Your task to perform on an android device: toggle improve location accuracy Image 0: 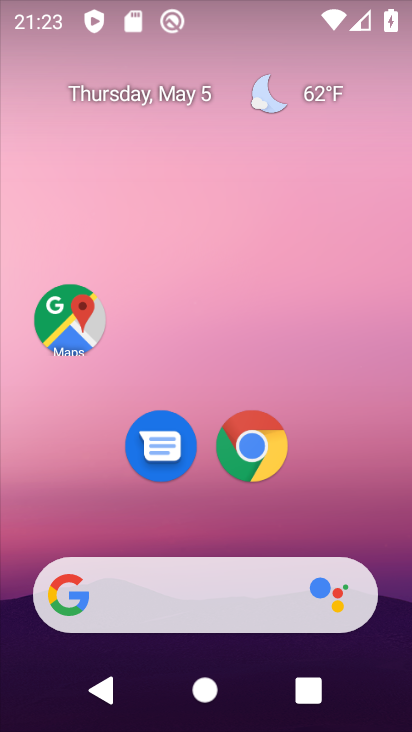
Step 0: drag from (223, 645) to (185, 399)
Your task to perform on an android device: toggle improve location accuracy Image 1: 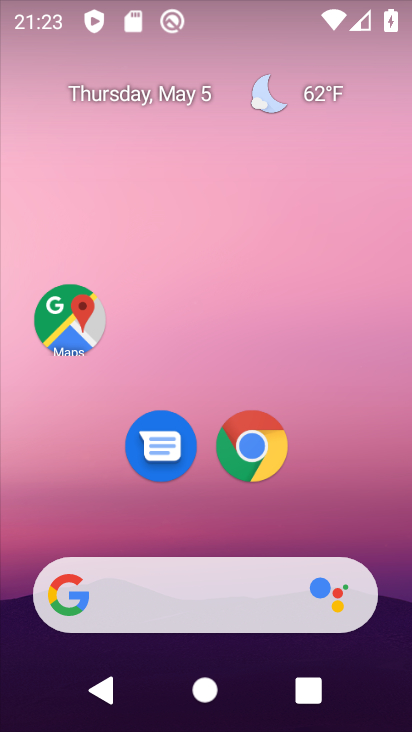
Step 1: drag from (251, 640) to (149, 148)
Your task to perform on an android device: toggle improve location accuracy Image 2: 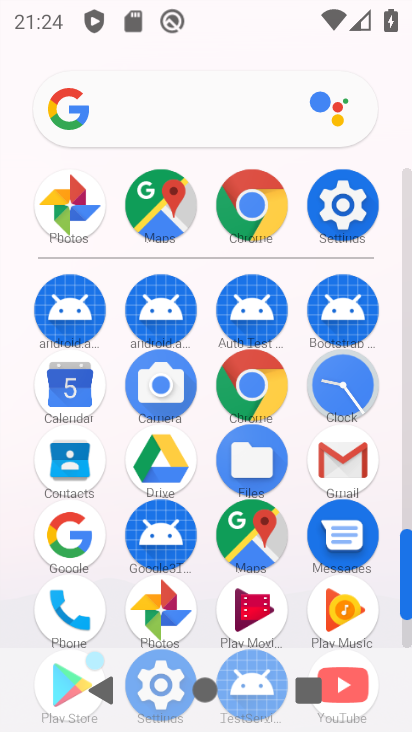
Step 2: click (351, 210)
Your task to perform on an android device: toggle improve location accuracy Image 3: 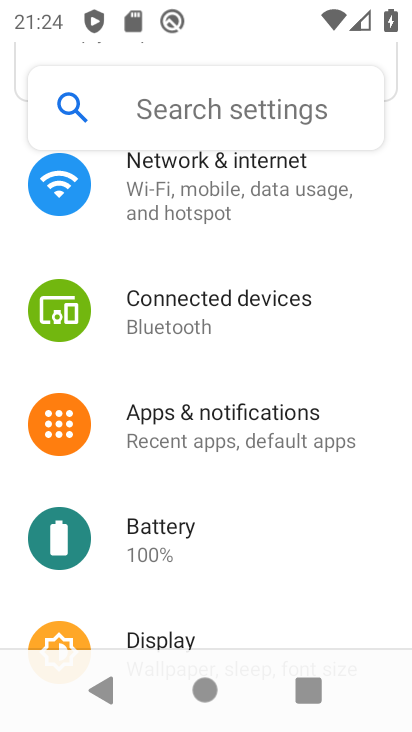
Step 3: click (213, 95)
Your task to perform on an android device: toggle improve location accuracy Image 4: 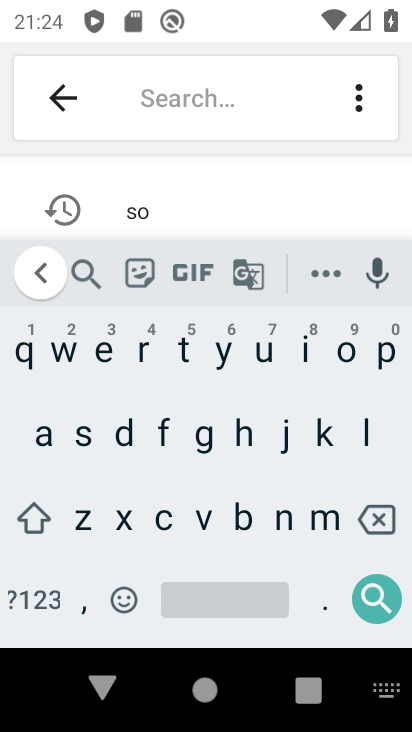
Step 4: click (37, 443)
Your task to perform on an android device: toggle improve location accuracy Image 5: 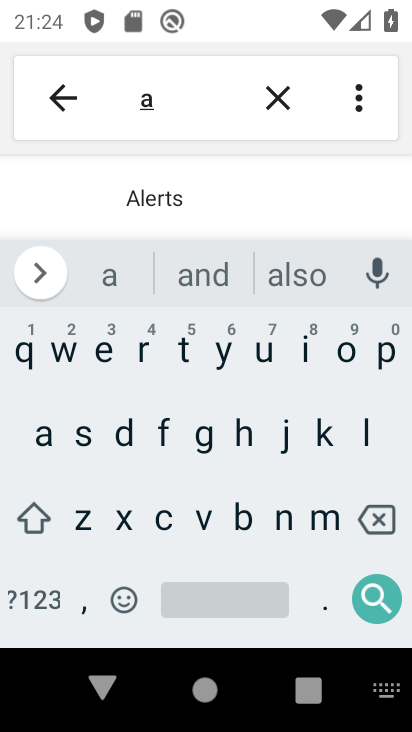
Step 5: click (159, 519)
Your task to perform on an android device: toggle improve location accuracy Image 6: 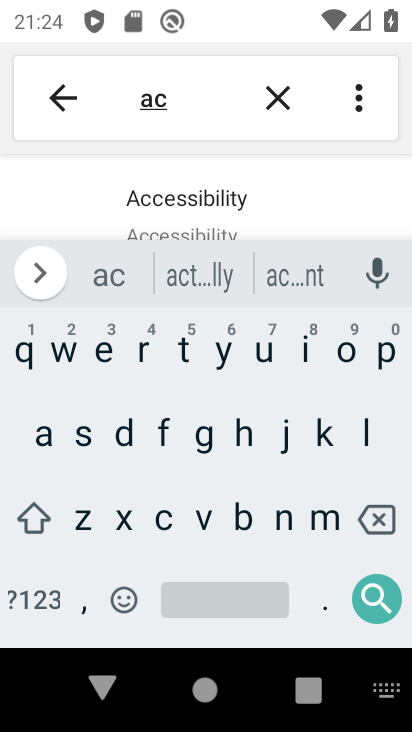
Step 6: click (380, 517)
Your task to perform on an android device: toggle improve location accuracy Image 7: 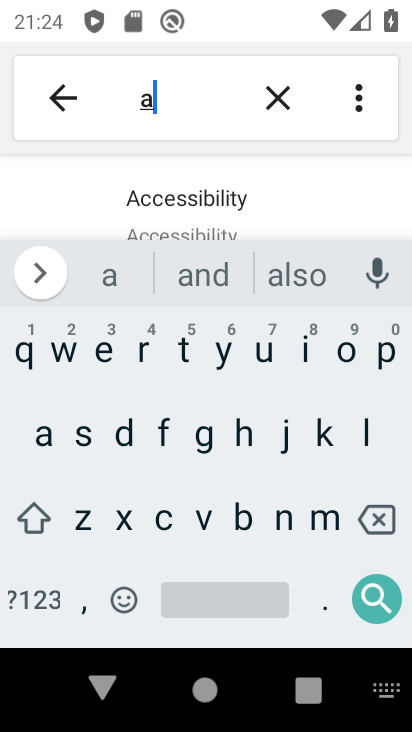
Step 7: click (380, 517)
Your task to perform on an android device: toggle improve location accuracy Image 8: 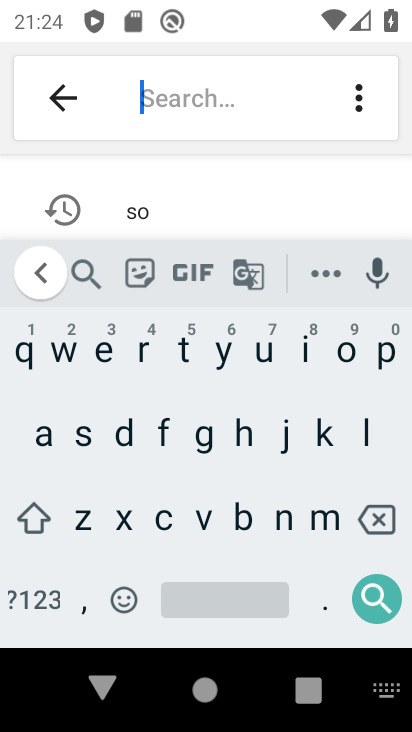
Step 8: click (362, 439)
Your task to perform on an android device: toggle improve location accuracy Image 9: 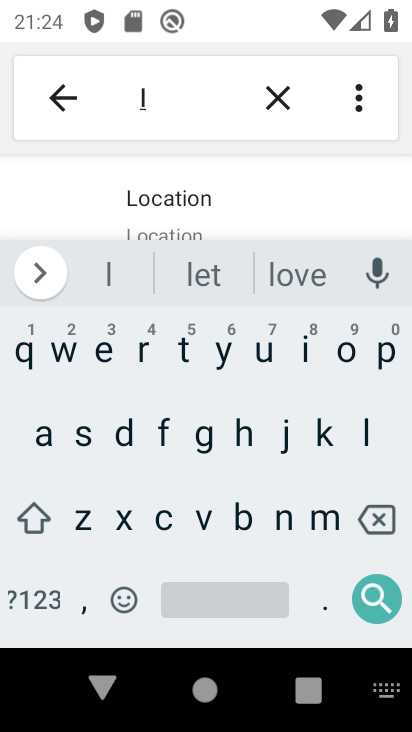
Step 9: click (206, 219)
Your task to perform on an android device: toggle improve location accuracy Image 10: 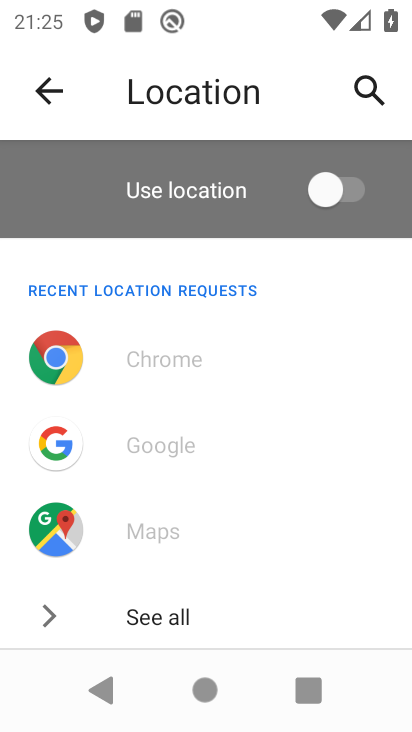
Step 10: drag from (166, 550) to (275, 287)
Your task to perform on an android device: toggle improve location accuracy Image 11: 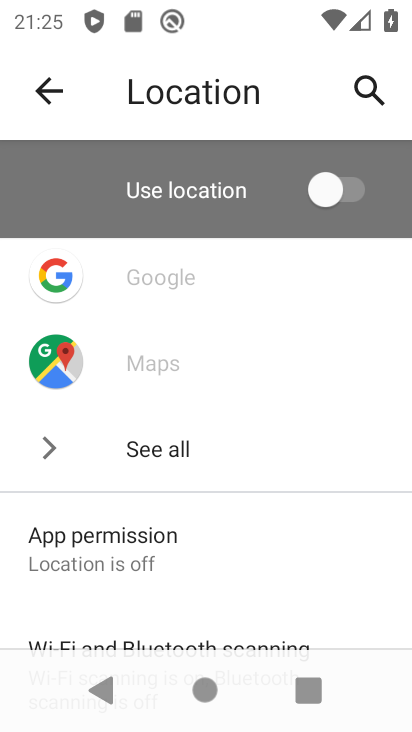
Step 11: drag from (237, 504) to (276, 361)
Your task to perform on an android device: toggle improve location accuracy Image 12: 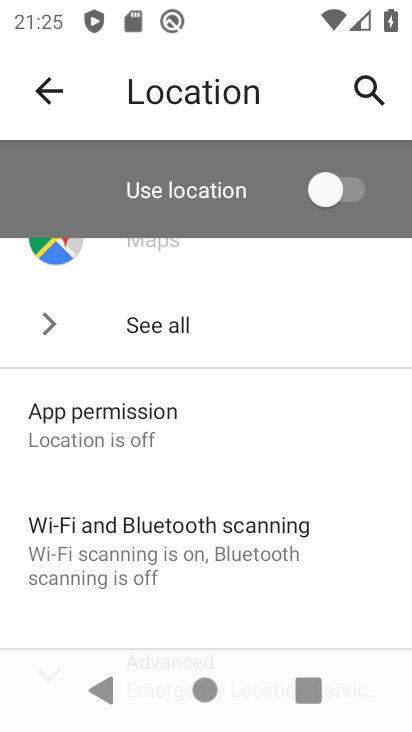
Step 12: drag from (225, 587) to (266, 391)
Your task to perform on an android device: toggle improve location accuracy Image 13: 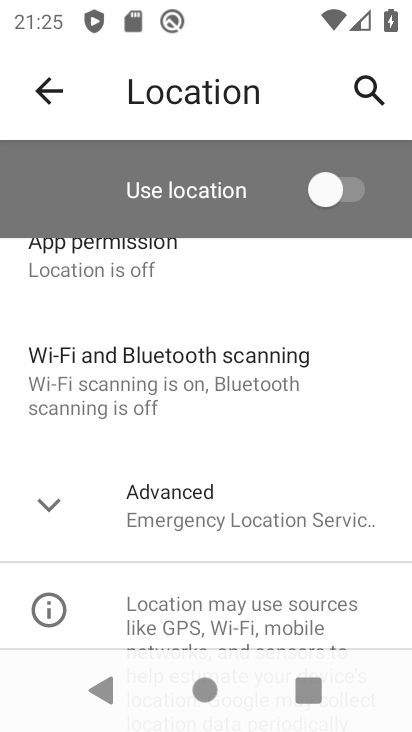
Step 13: click (203, 523)
Your task to perform on an android device: toggle improve location accuracy Image 14: 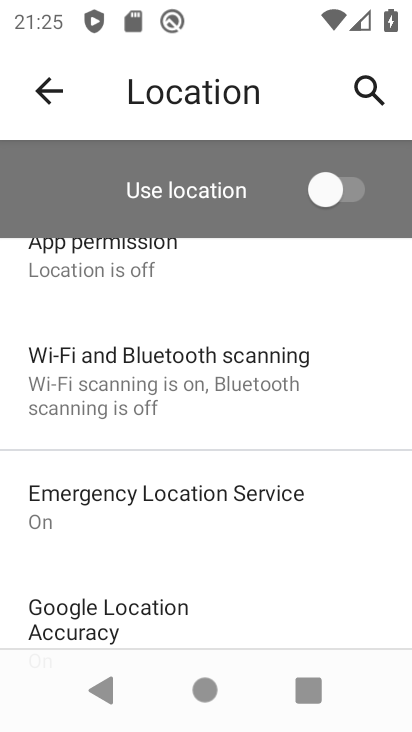
Step 14: drag from (208, 603) to (215, 504)
Your task to perform on an android device: toggle improve location accuracy Image 15: 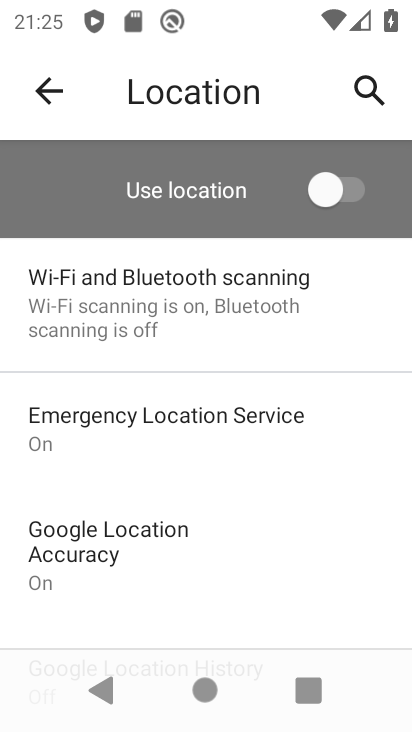
Step 15: click (178, 535)
Your task to perform on an android device: toggle improve location accuracy Image 16: 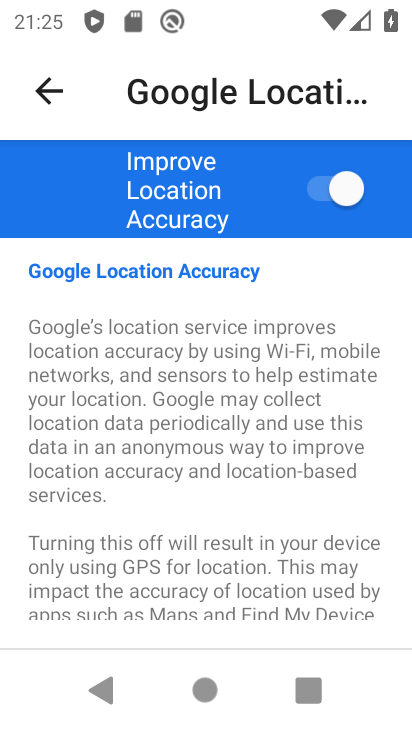
Step 16: task complete